Your task to perform on an android device: Go to Wikipedia Image 0: 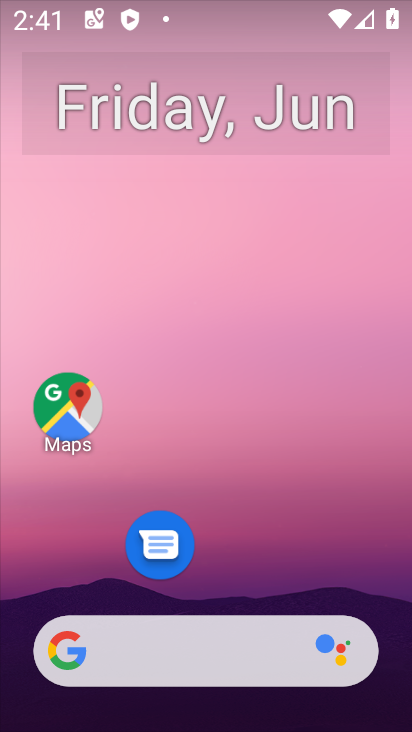
Step 0: drag from (223, 576) to (317, 7)
Your task to perform on an android device: Go to Wikipedia Image 1: 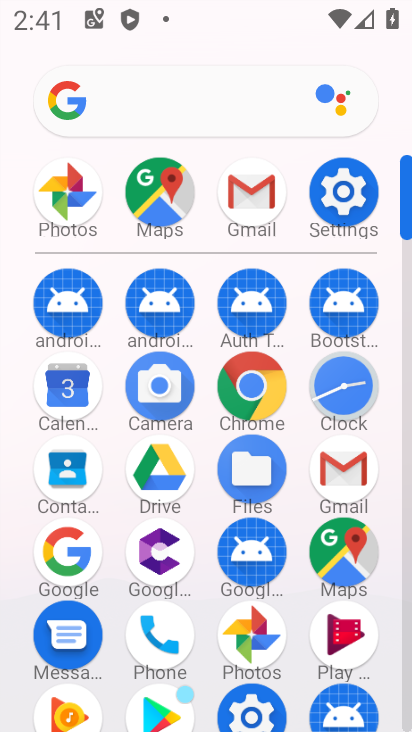
Step 1: click (263, 386)
Your task to perform on an android device: Go to Wikipedia Image 2: 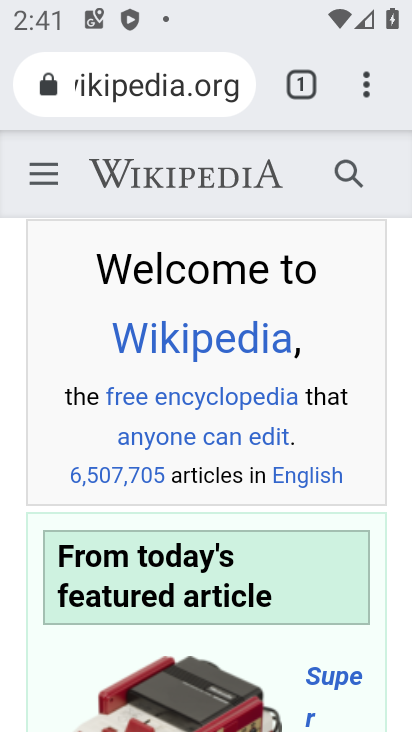
Step 2: click (202, 339)
Your task to perform on an android device: Go to Wikipedia Image 3: 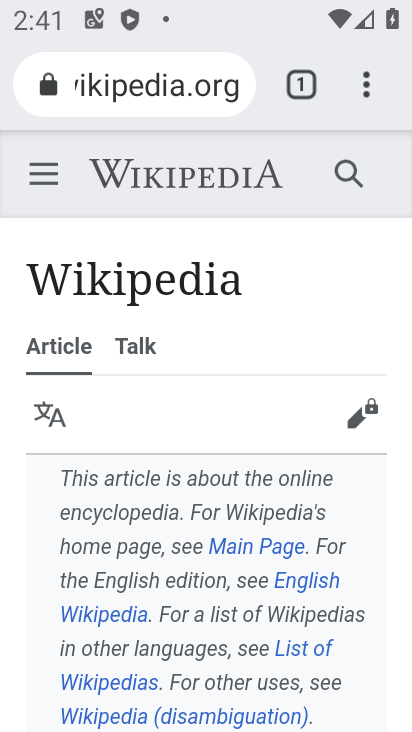
Step 3: task complete